Your task to perform on an android device: allow notifications from all sites in the chrome app Image 0: 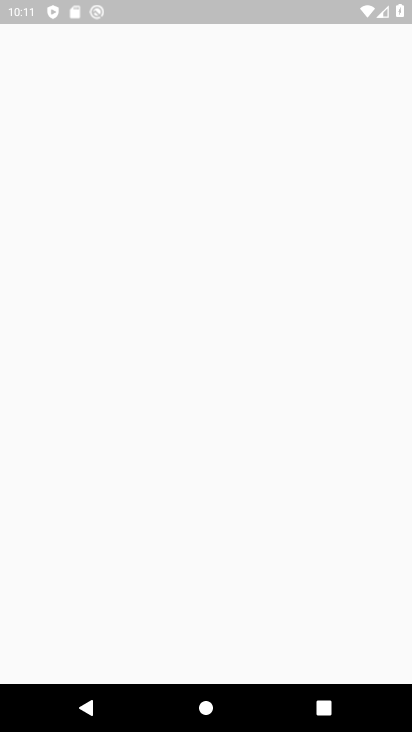
Step 0: press home button
Your task to perform on an android device: allow notifications from all sites in the chrome app Image 1: 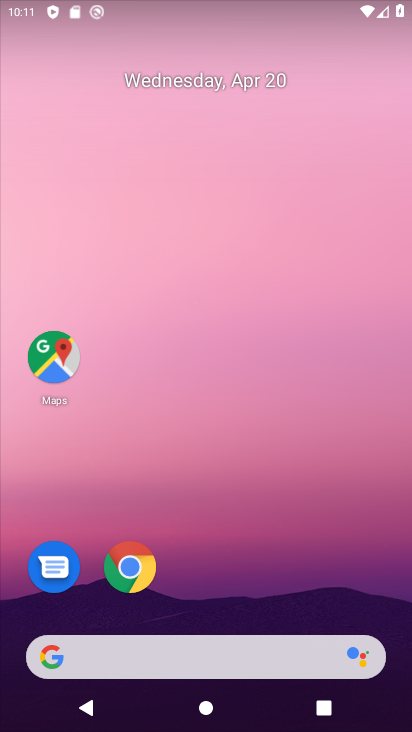
Step 1: click (123, 575)
Your task to perform on an android device: allow notifications from all sites in the chrome app Image 2: 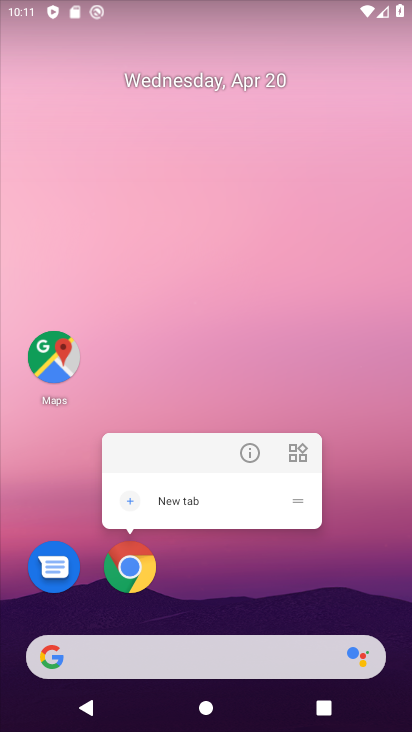
Step 2: click (249, 452)
Your task to perform on an android device: allow notifications from all sites in the chrome app Image 3: 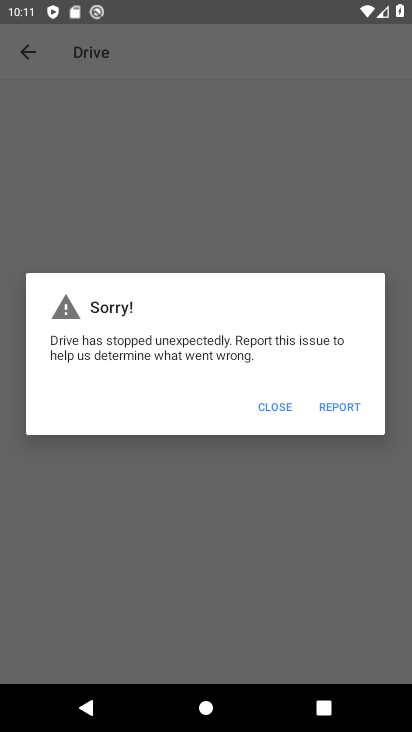
Step 3: click (280, 403)
Your task to perform on an android device: allow notifications from all sites in the chrome app Image 4: 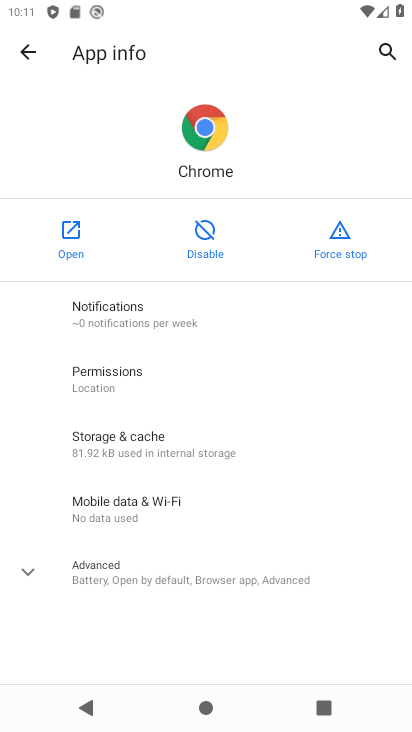
Step 4: click (151, 308)
Your task to perform on an android device: allow notifications from all sites in the chrome app Image 5: 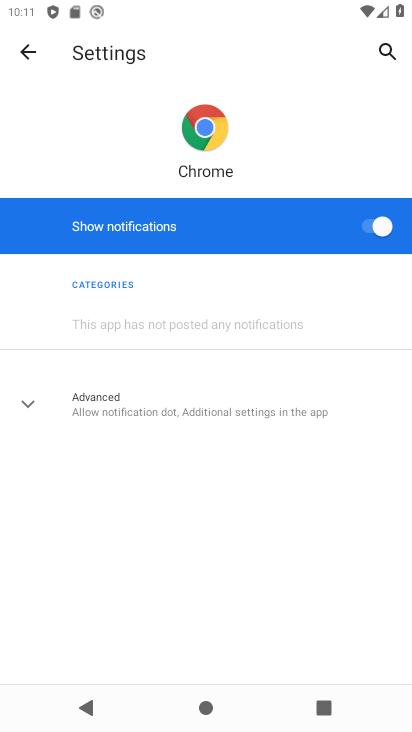
Step 5: click (40, 394)
Your task to perform on an android device: allow notifications from all sites in the chrome app Image 6: 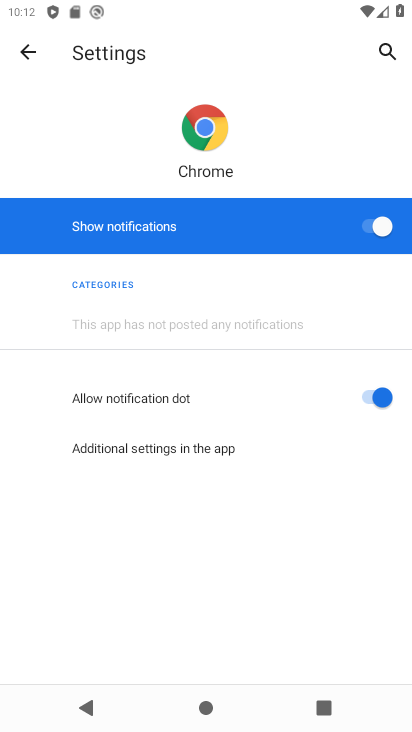
Step 6: click (225, 318)
Your task to perform on an android device: allow notifications from all sites in the chrome app Image 7: 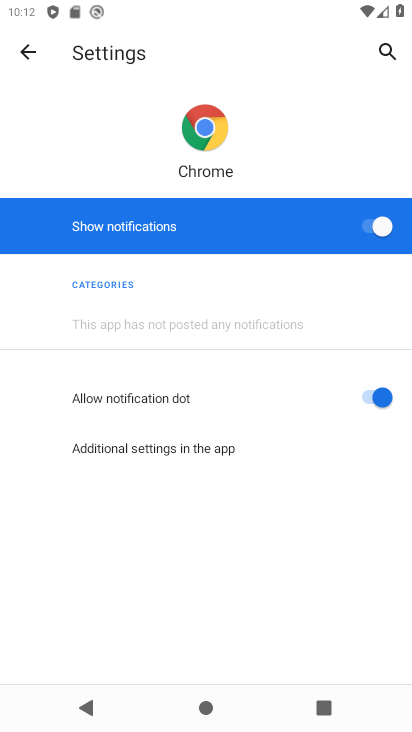
Step 7: click (26, 52)
Your task to perform on an android device: allow notifications from all sites in the chrome app Image 8: 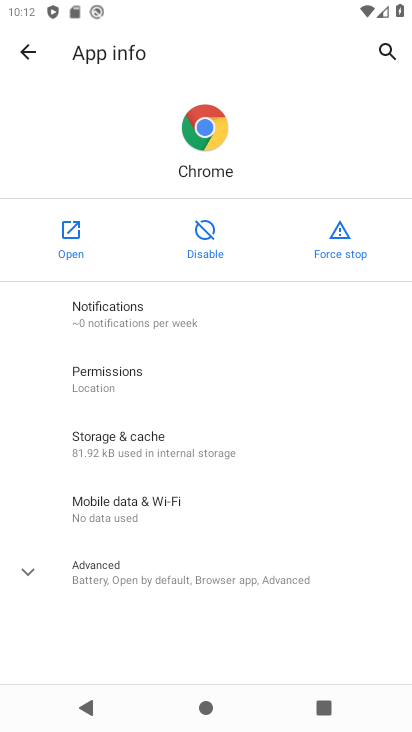
Step 8: task complete